Your task to perform on an android device: Search for "asus zenbook" on bestbuy.com, select the first entry, add it to the cart, then select checkout. Image 0: 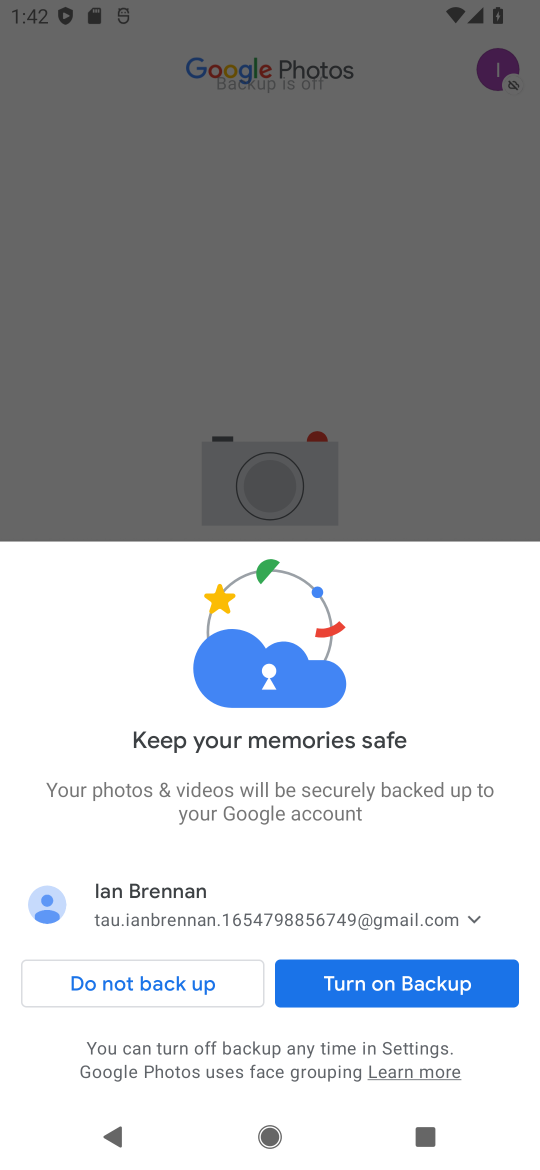
Step 0: press home button
Your task to perform on an android device: Search for "asus zenbook" on bestbuy.com, select the first entry, add it to the cart, then select checkout. Image 1: 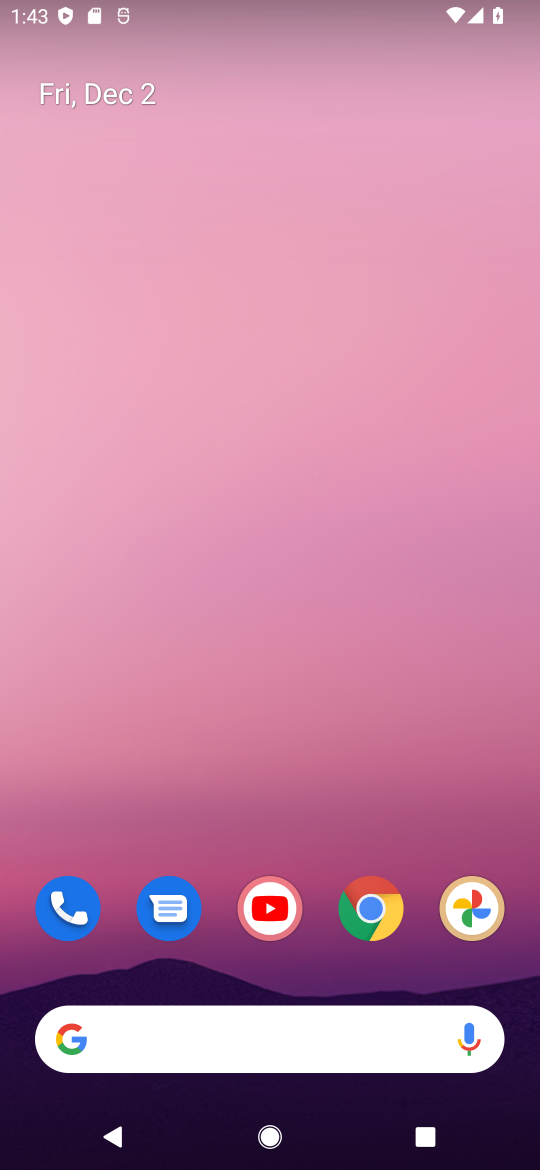
Step 1: drag from (253, 897) to (299, 234)
Your task to perform on an android device: Search for "asus zenbook" on bestbuy.com, select the first entry, add it to the cart, then select checkout. Image 2: 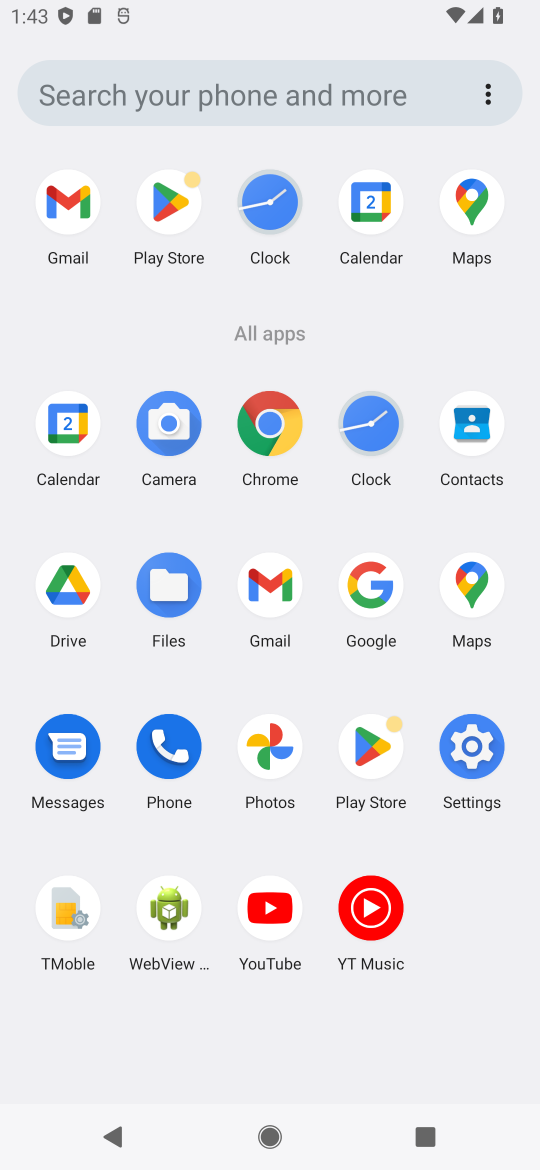
Step 2: click (366, 595)
Your task to perform on an android device: Search for "asus zenbook" on bestbuy.com, select the first entry, add it to the cart, then select checkout. Image 3: 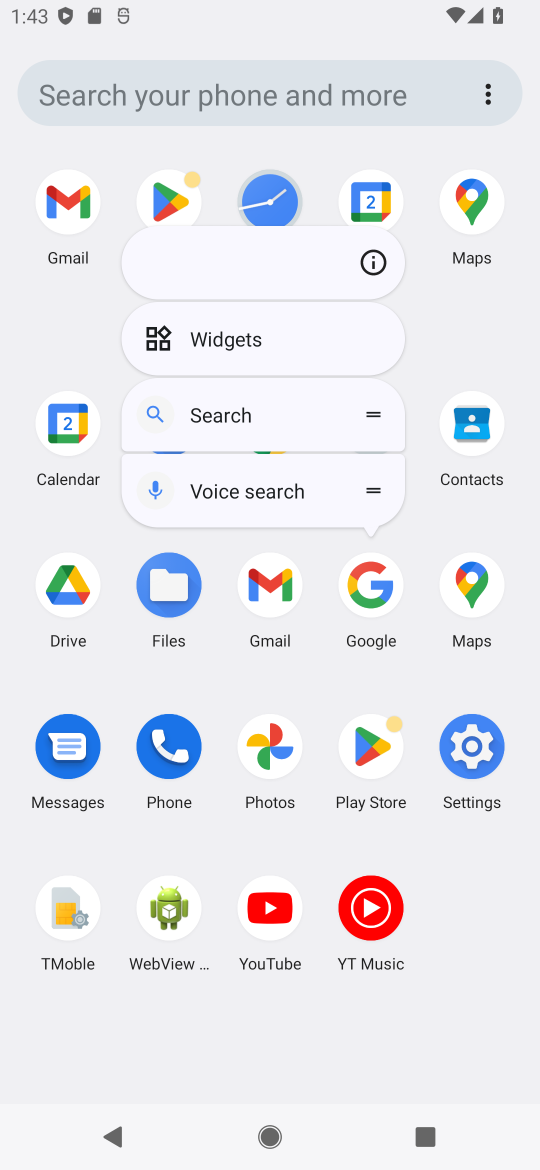
Step 3: click (379, 582)
Your task to perform on an android device: Search for "asus zenbook" on bestbuy.com, select the first entry, add it to the cart, then select checkout. Image 4: 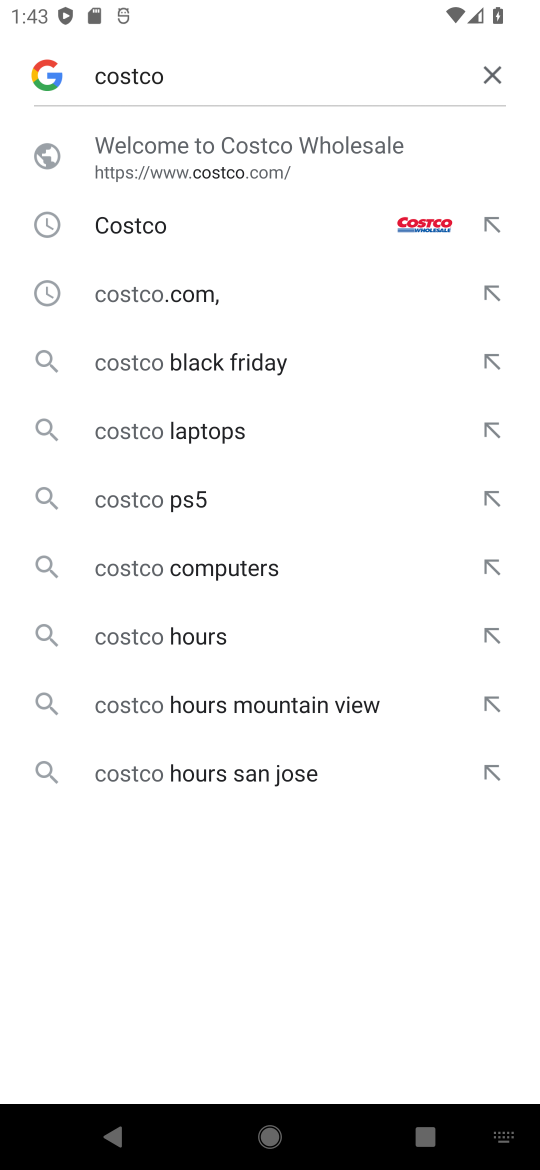
Step 4: click (500, 75)
Your task to perform on an android device: Search for "asus zenbook" on bestbuy.com, select the first entry, add it to the cart, then select checkout. Image 5: 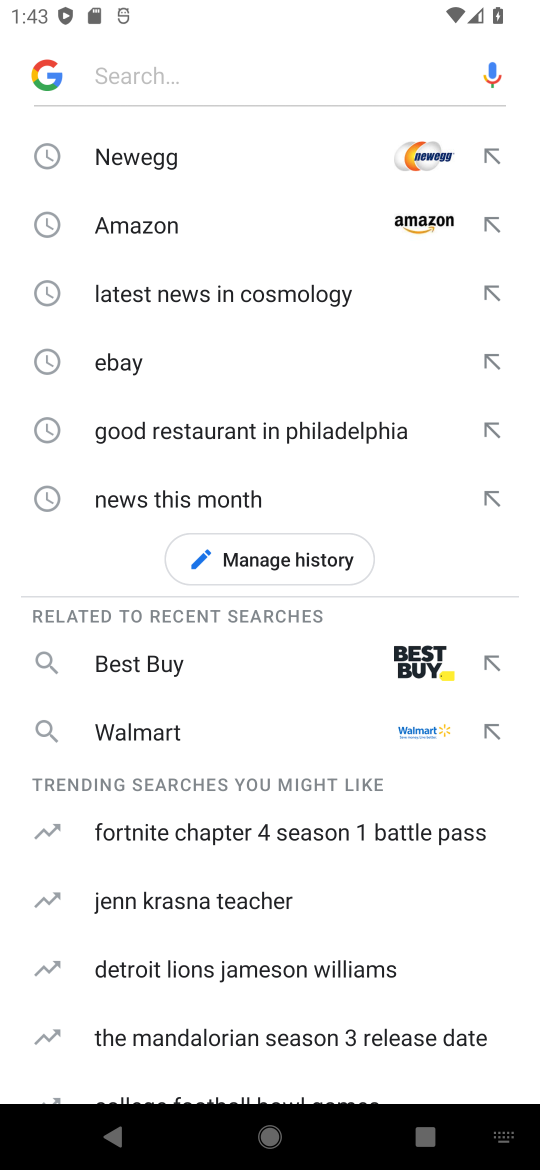
Step 5: click (217, 656)
Your task to perform on an android device: Search for "asus zenbook" on bestbuy.com, select the first entry, add it to the cart, then select checkout. Image 6: 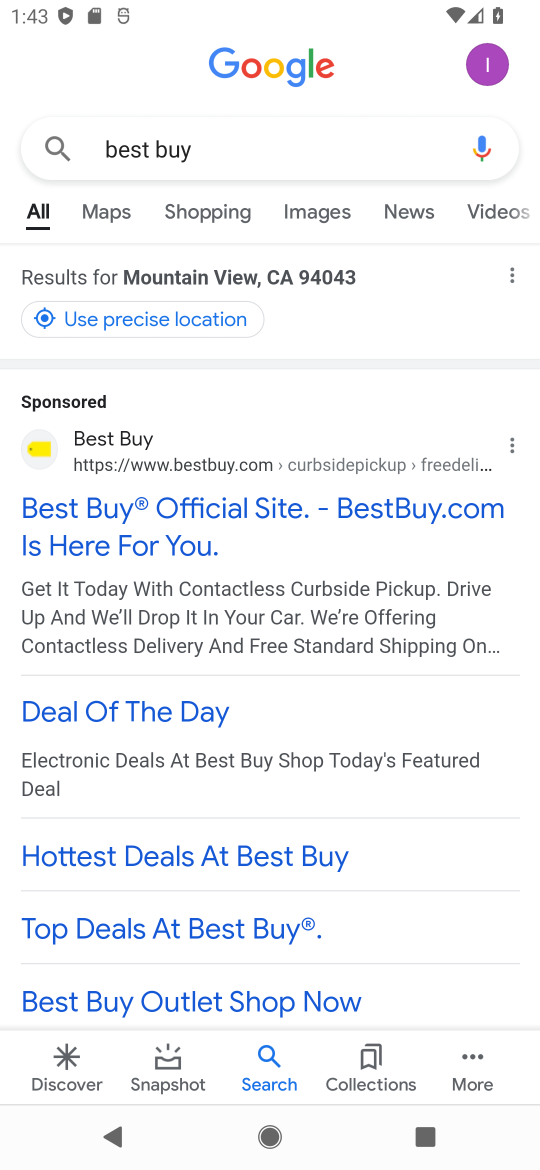
Step 6: click (162, 504)
Your task to perform on an android device: Search for "asus zenbook" on bestbuy.com, select the first entry, add it to the cart, then select checkout. Image 7: 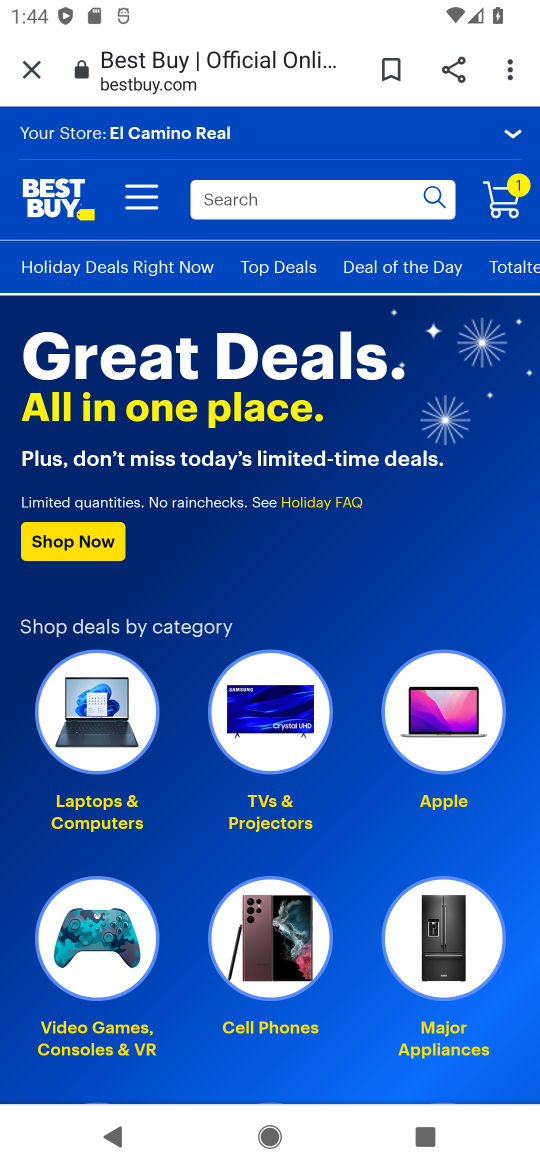
Step 7: click (323, 201)
Your task to perform on an android device: Search for "asus zenbook" on bestbuy.com, select the first entry, add it to the cart, then select checkout. Image 8: 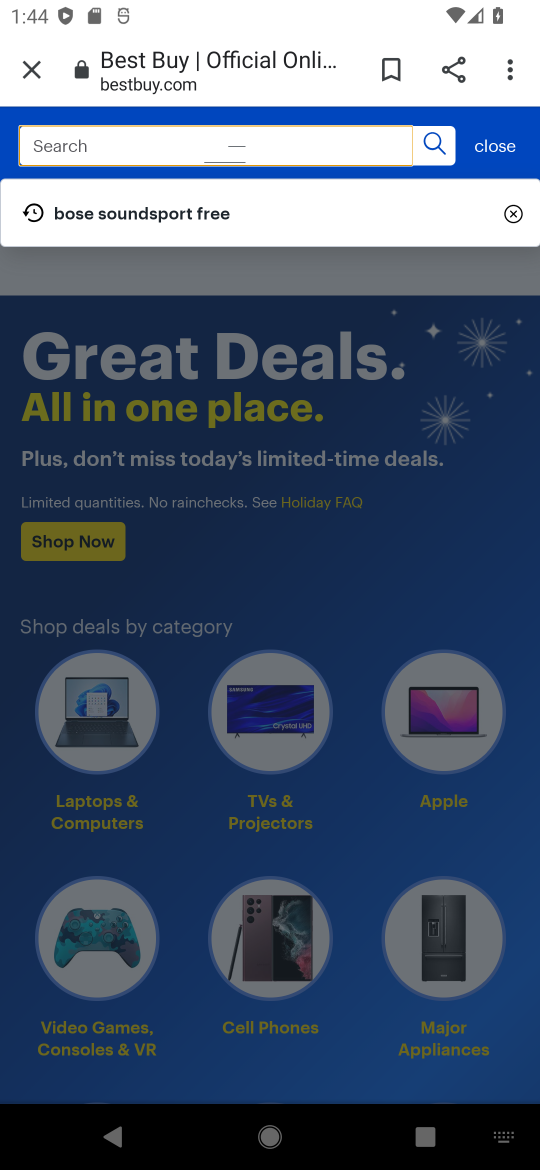
Step 8: type "asus zenbook"
Your task to perform on an android device: Search for "asus zenbook" on bestbuy.com, select the first entry, add it to the cart, then select checkout. Image 9: 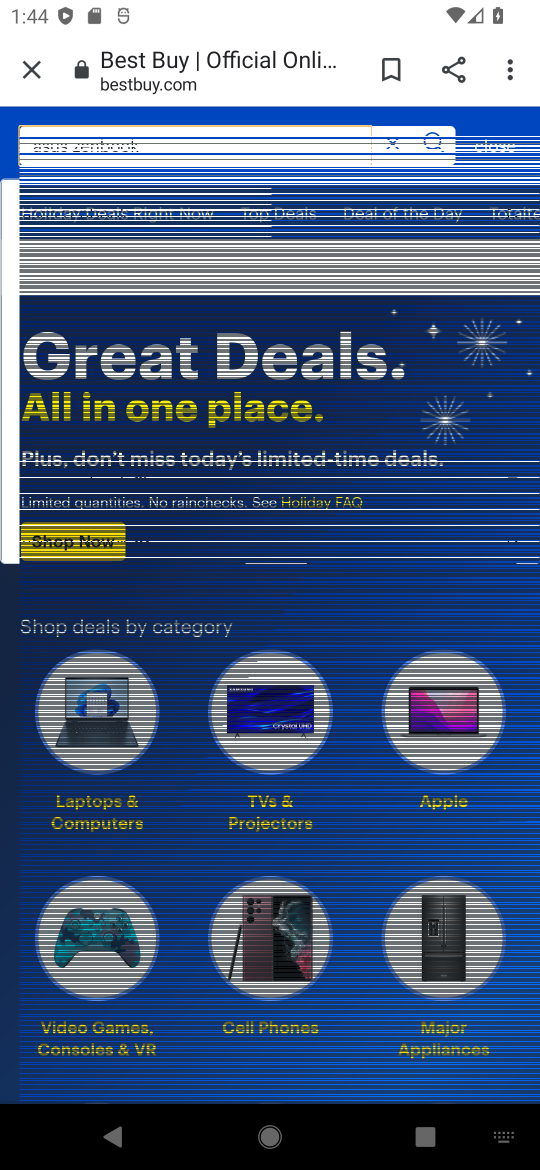
Step 9: click (115, 210)
Your task to perform on an android device: Search for "asus zenbook" on bestbuy.com, select the first entry, add it to the cart, then select checkout. Image 10: 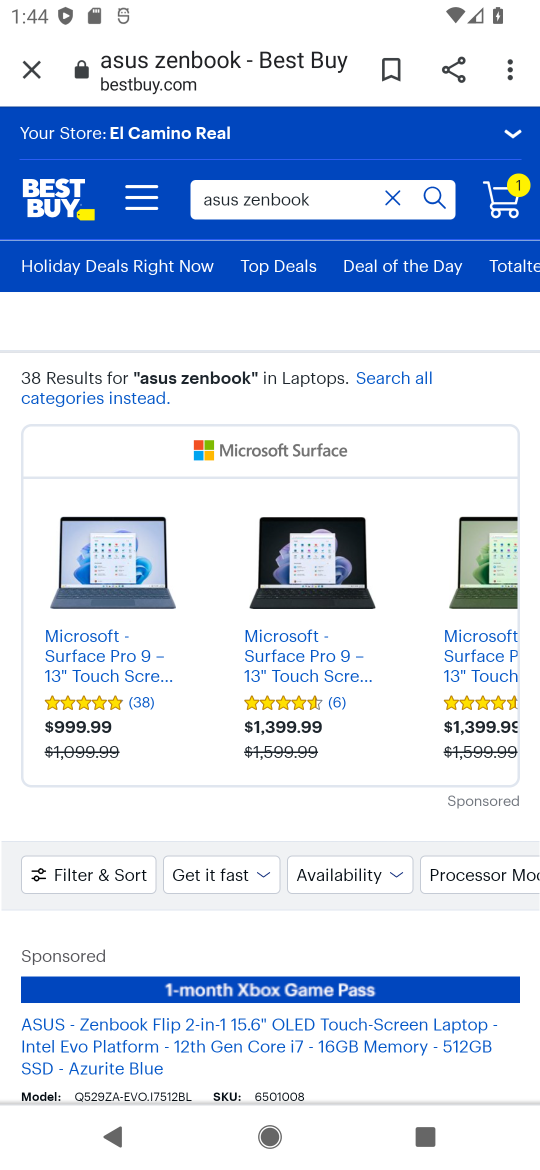
Step 10: drag from (279, 1035) to (283, 388)
Your task to perform on an android device: Search for "asus zenbook" on bestbuy.com, select the first entry, add it to the cart, then select checkout. Image 11: 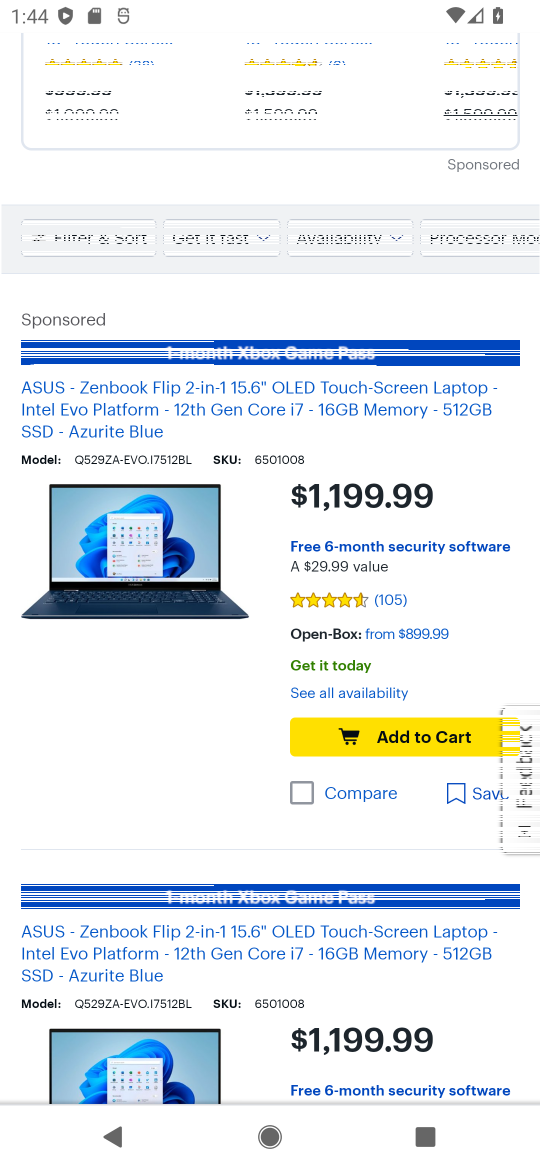
Step 11: click (411, 737)
Your task to perform on an android device: Search for "asus zenbook" on bestbuy.com, select the first entry, add it to the cart, then select checkout. Image 12: 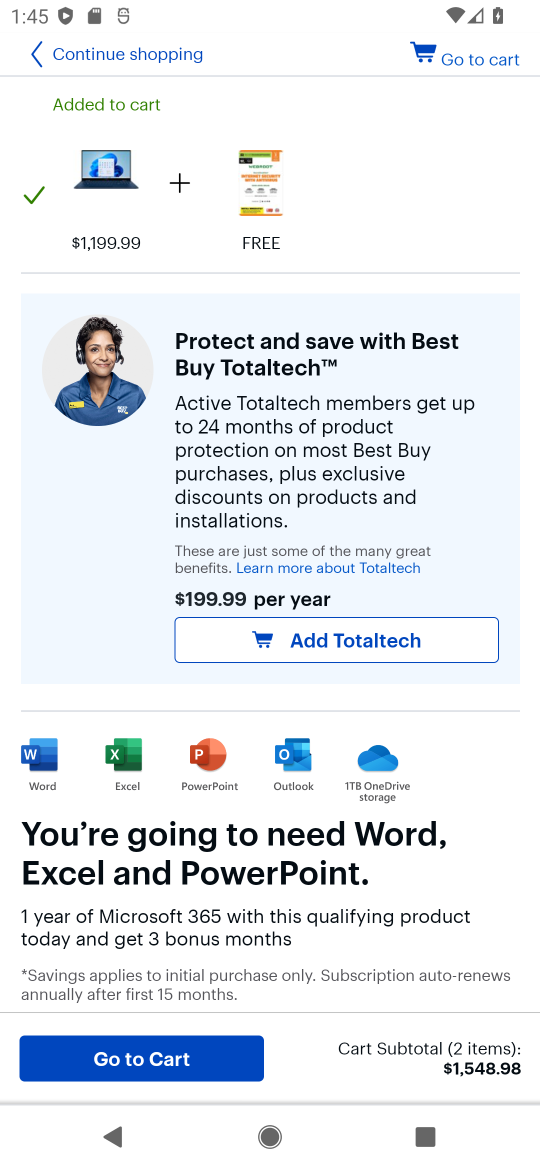
Step 12: click (174, 1065)
Your task to perform on an android device: Search for "asus zenbook" on bestbuy.com, select the first entry, add it to the cart, then select checkout. Image 13: 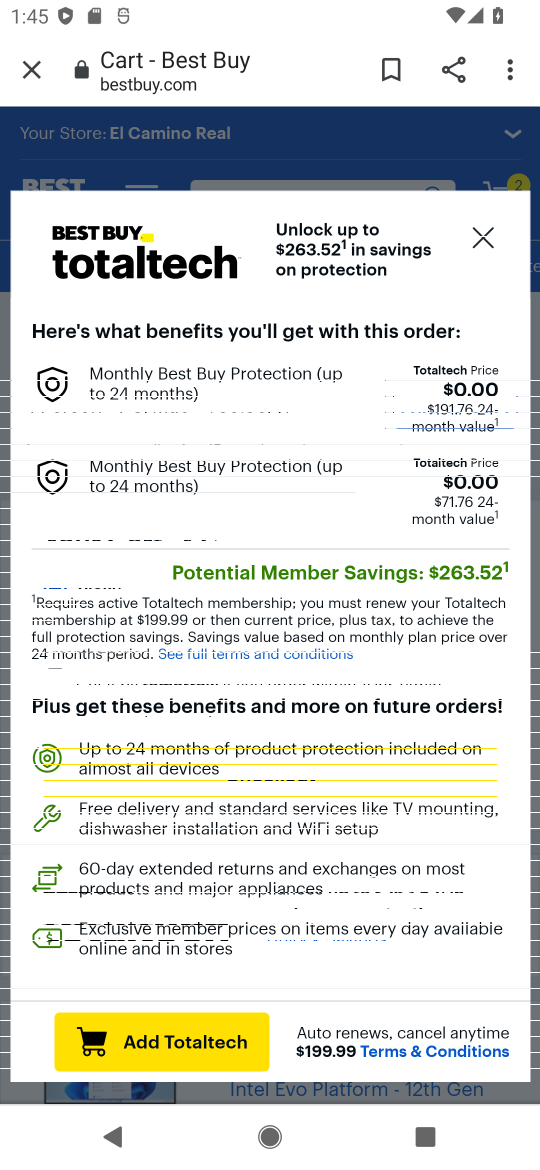
Step 13: click (484, 235)
Your task to perform on an android device: Search for "asus zenbook" on bestbuy.com, select the first entry, add it to the cart, then select checkout. Image 14: 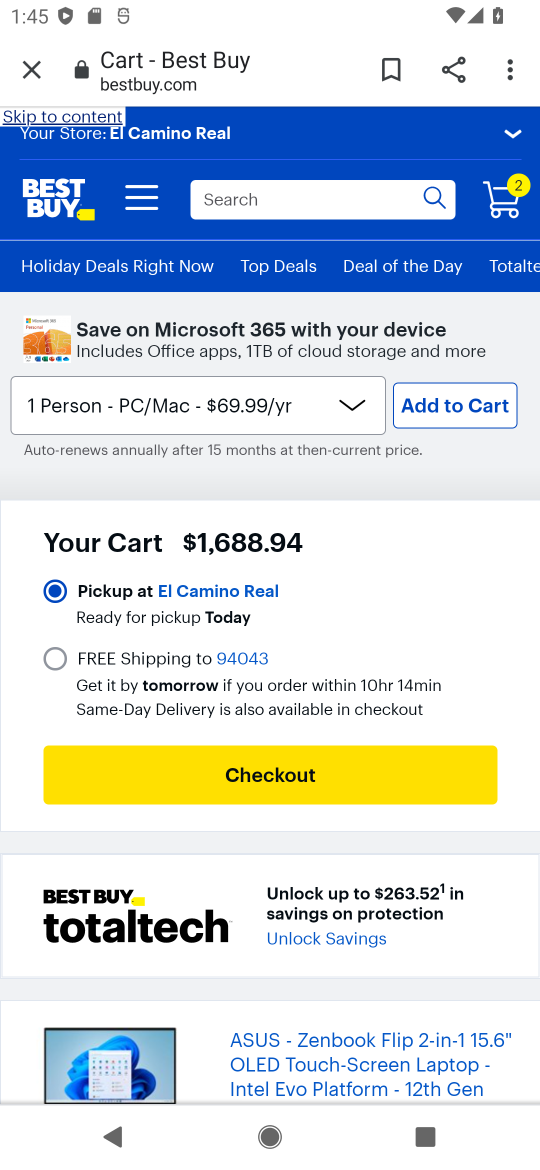
Step 14: click (265, 763)
Your task to perform on an android device: Search for "asus zenbook" on bestbuy.com, select the first entry, add it to the cart, then select checkout. Image 15: 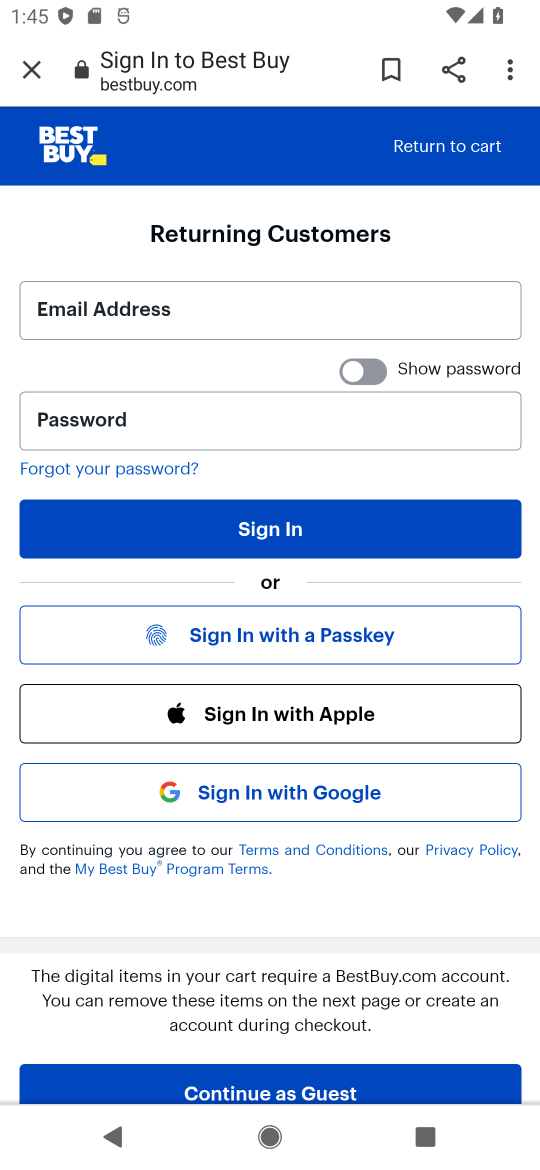
Step 15: task complete